Your task to perform on an android device: Open Wikipedia Image 0: 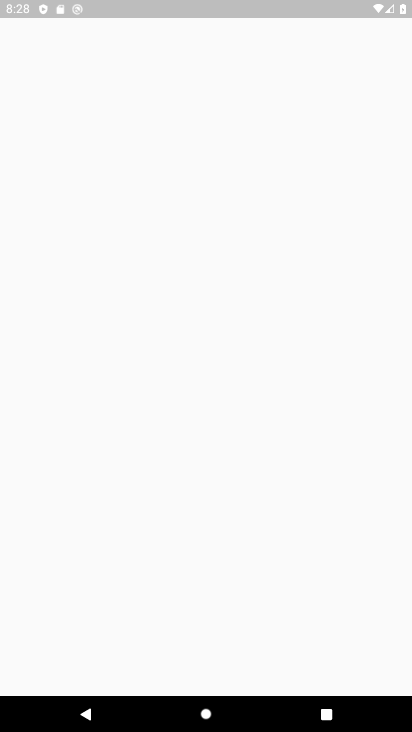
Step 0: press home button
Your task to perform on an android device: Open Wikipedia Image 1: 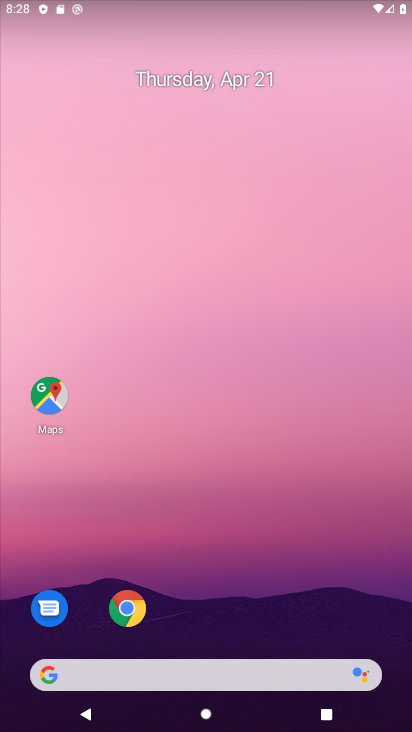
Step 1: click (133, 614)
Your task to perform on an android device: Open Wikipedia Image 2: 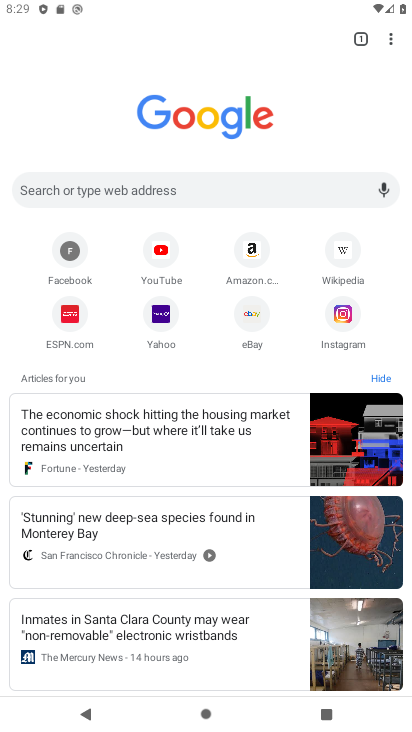
Step 2: click (346, 257)
Your task to perform on an android device: Open Wikipedia Image 3: 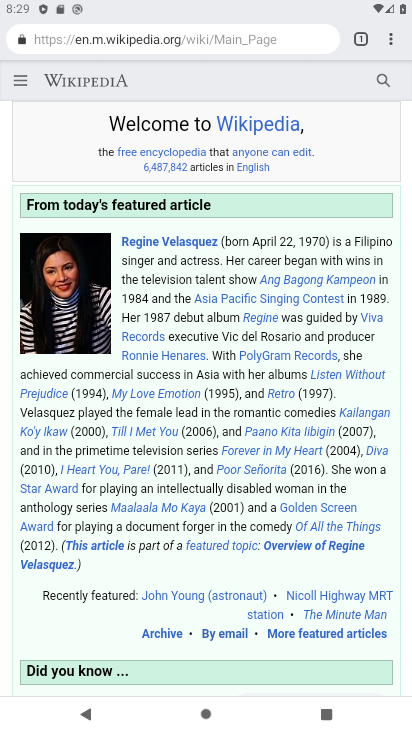
Step 3: task complete